Your task to perform on an android device: turn on sleep mode Image 0: 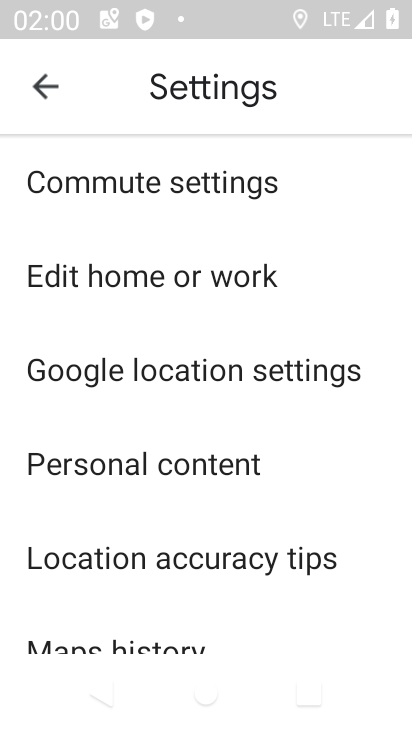
Step 0: press home button
Your task to perform on an android device: turn on sleep mode Image 1: 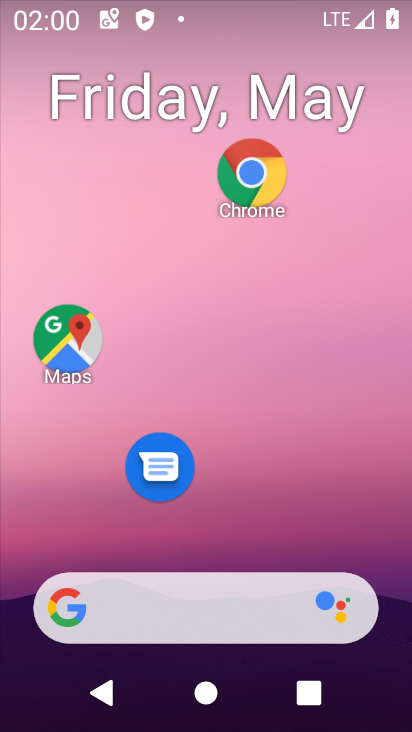
Step 1: drag from (248, 659) to (186, 155)
Your task to perform on an android device: turn on sleep mode Image 2: 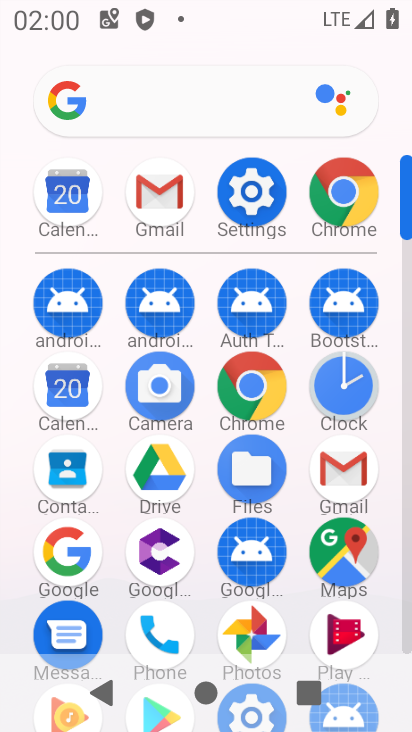
Step 2: click (237, 192)
Your task to perform on an android device: turn on sleep mode Image 3: 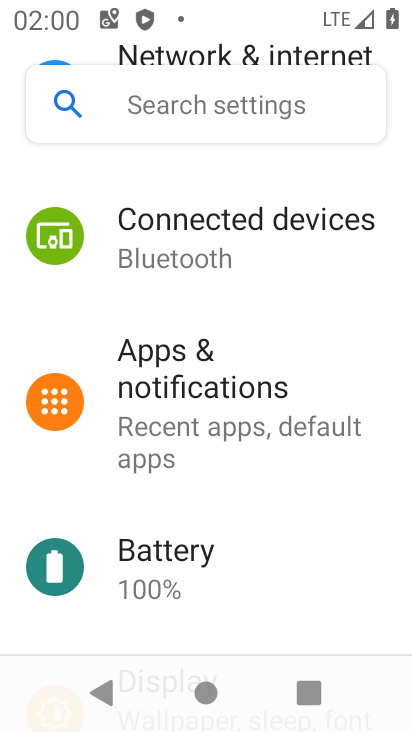
Step 3: click (154, 109)
Your task to perform on an android device: turn on sleep mode Image 4: 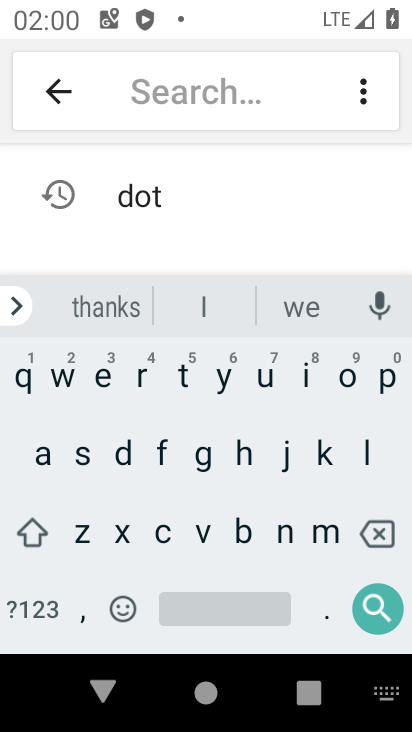
Step 4: click (87, 452)
Your task to perform on an android device: turn on sleep mode Image 5: 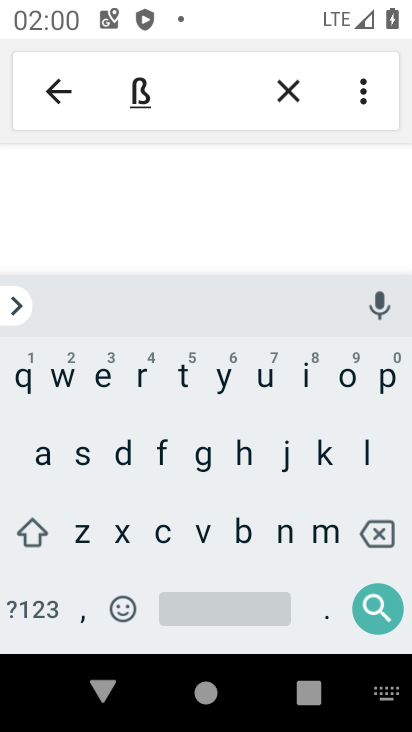
Step 5: click (365, 448)
Your task to perform on an android device: turn on sleep mode Image 6: 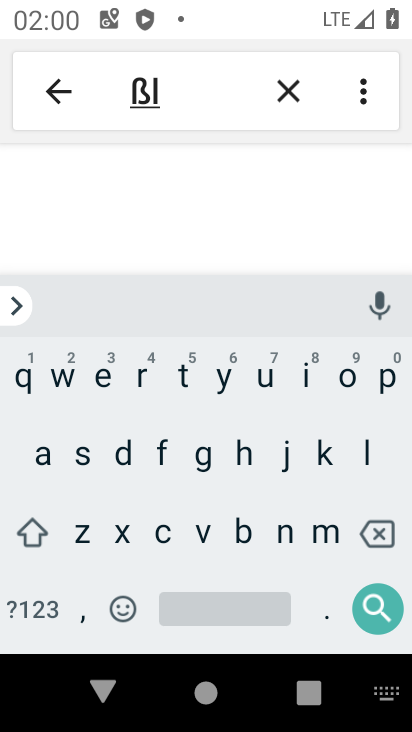
Step 6: click (299, 88)
Your task to perform on an android device: turn on sleep mode Image 7: 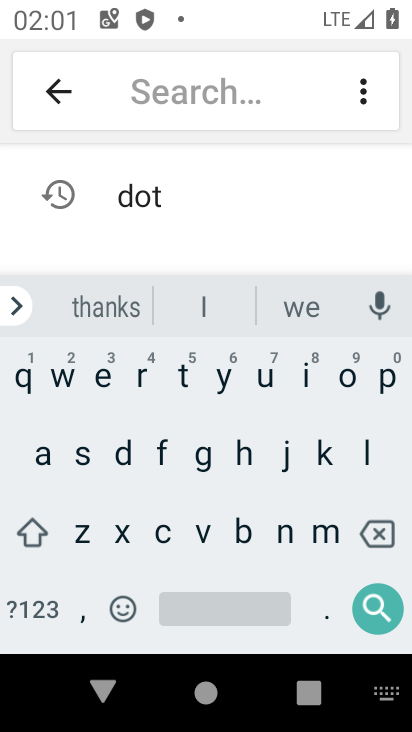
Step 7: click (83, 451)
Your task to perform on an android device: turn on sleep mode Image 8: 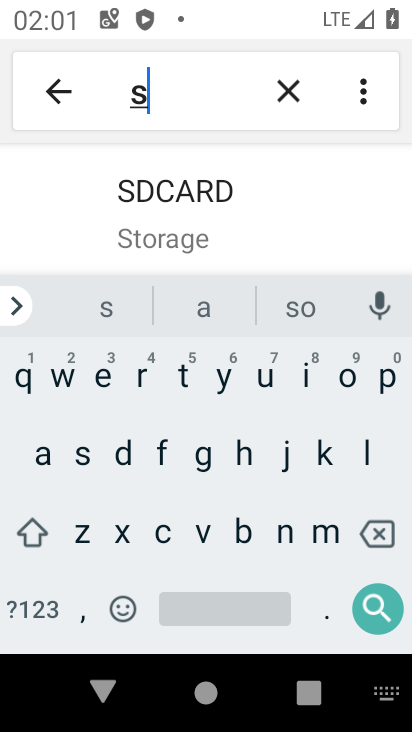
Step 8: click (363, 455)
Your task to perform on an android device: turn on sleep mode Image 9: 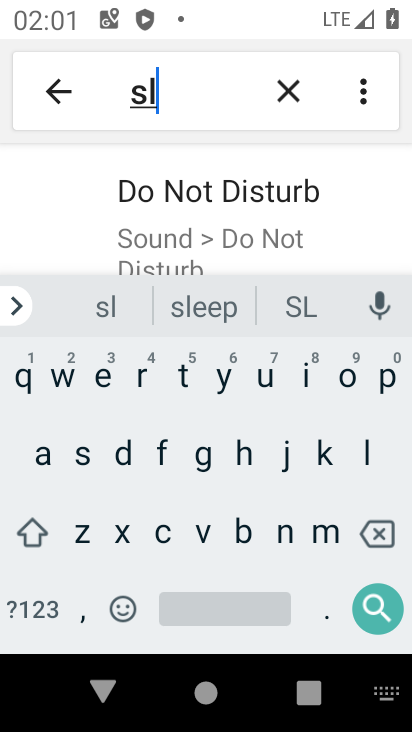
Step 9: click (169, 213)
Your task to perform on an android device: turn on sleep mode Image 10: 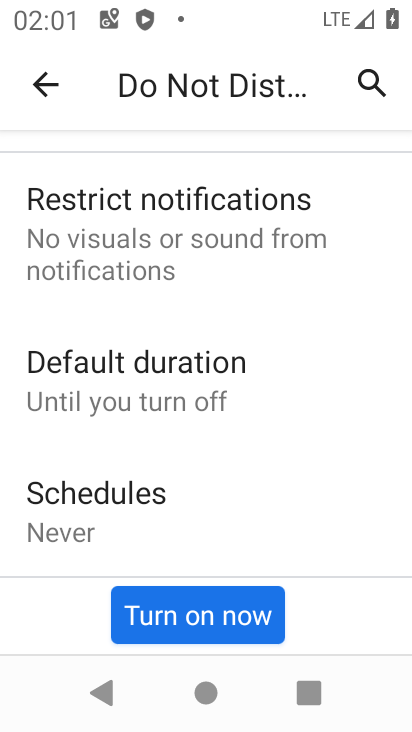
Step 10: click (217, 602)
Your task to perform on an android device: turn on sleep mode Image 11: 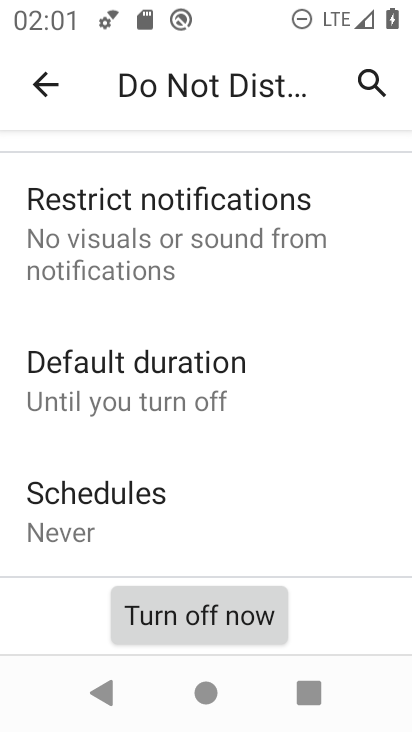
Step 11: task complete